Your task to perform on an android device: turn off priority inbox in the gmail app Image 0: 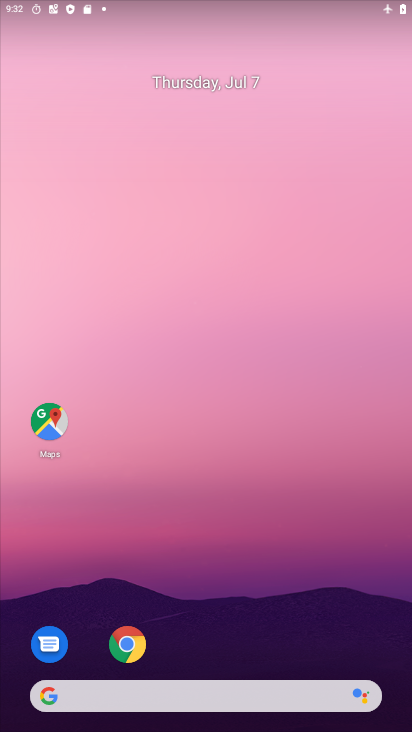
Step 0: drag from (274, 580) to (286, 100)
Your task to perform on an android device: turn off priority inbox in the gmail app Image 1: 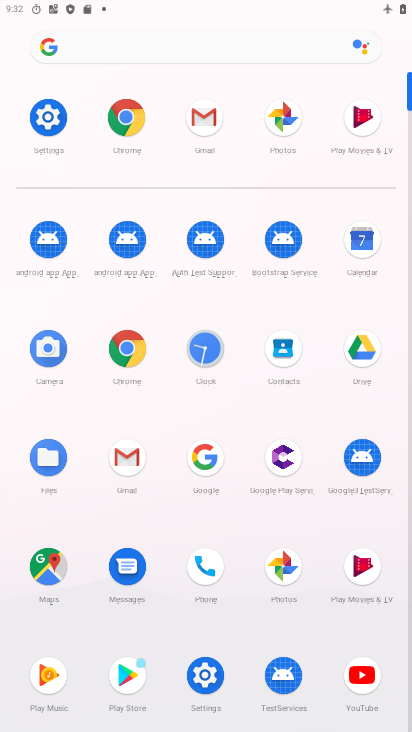
Step 1: click (213, 111)
Your task to perform on an android device: turn off priority inbox in the gmail app Image 2: 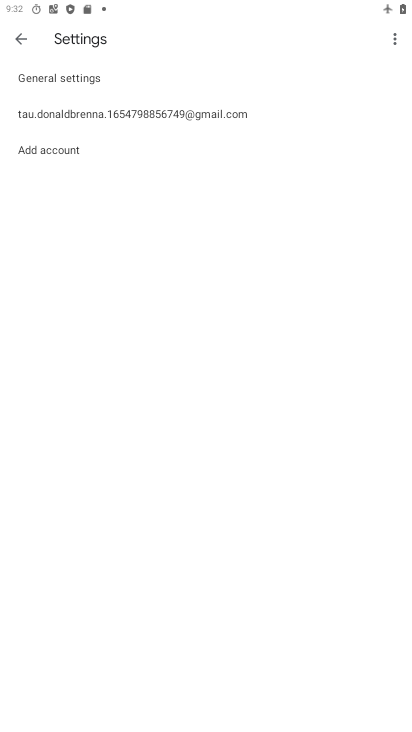
Step 2: click (18, 30)
Your task to perform on an android device: turn off priority inbox in the gmail app Image 3: 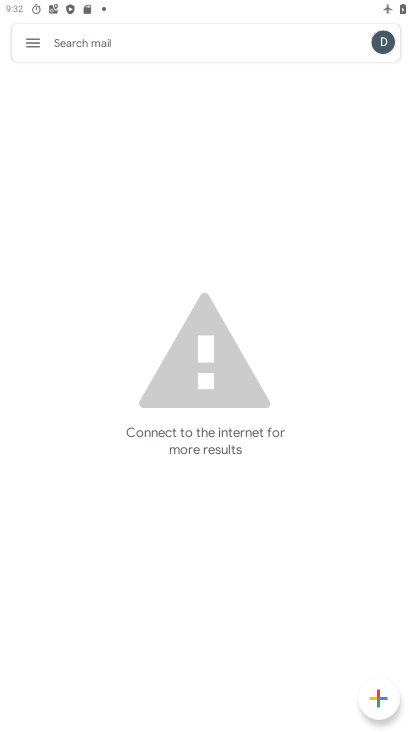
Step 3: click (27, 43)
Your task to perform on an android device: turn off priority inbox in the gmail app Image 4: 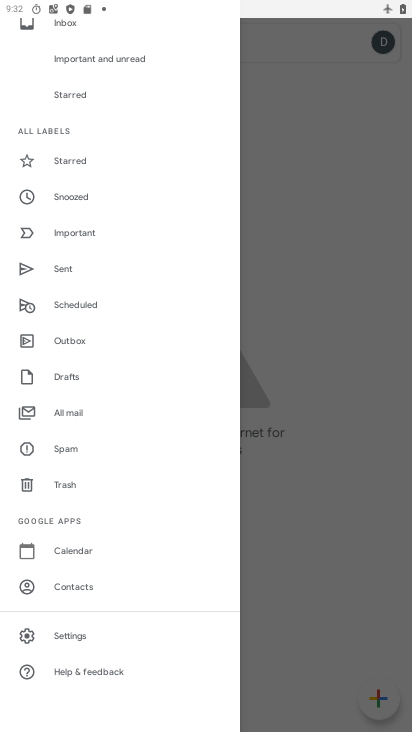
Step 4: click (73, 637)
Your task to perform on an android device: turn off priority inbox in the gmail app Image 5: 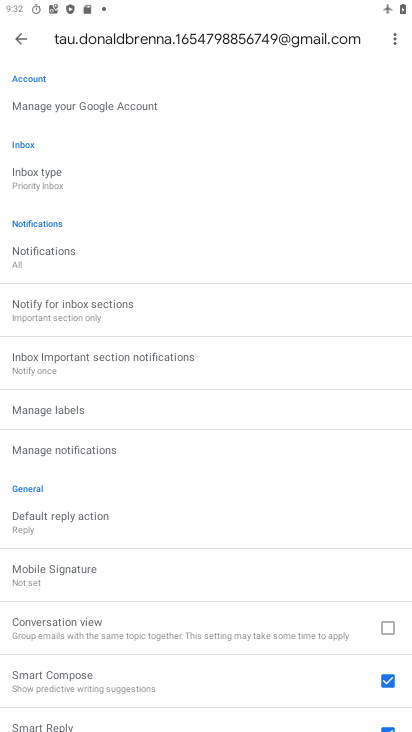
Step 5: click (44, 184)
Your task to perform on an android device: turn off priority inbox in the gmail app Image 6: 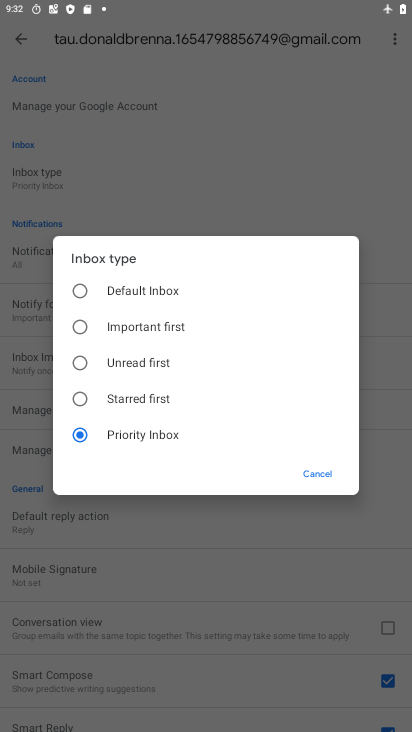
Step 6: task complete